Your task to perform on an android device: open wifi settings Image 0: 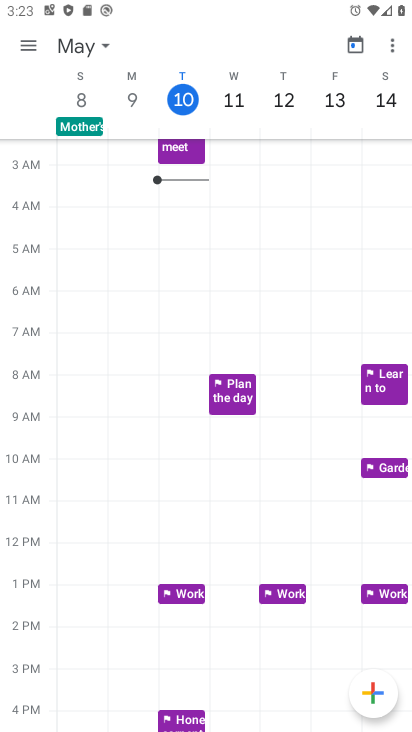
Step 0: press home button
Your task to perform on an android device: open wifi settings Image 1: 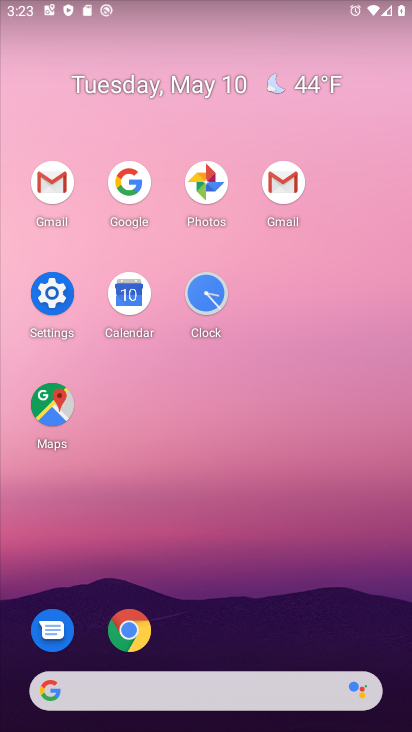
Step 1: click (56, 298)
Your task to perform on an android device: open wifi settings Image 2: 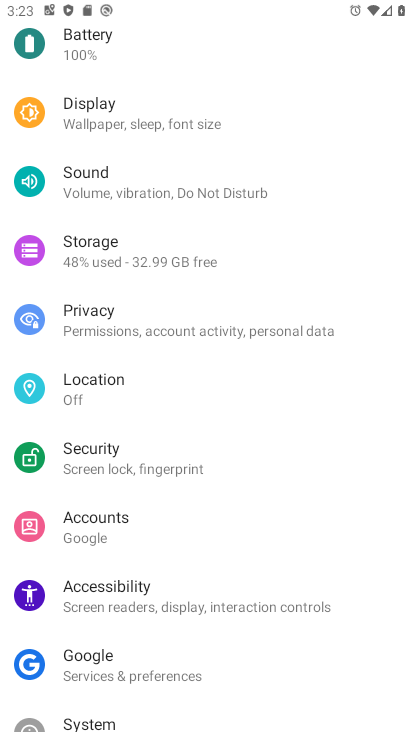
Step 2: drag from (259, 108) to (198, 593)
Your task to perform on an android device: open wifi settings Image 3: 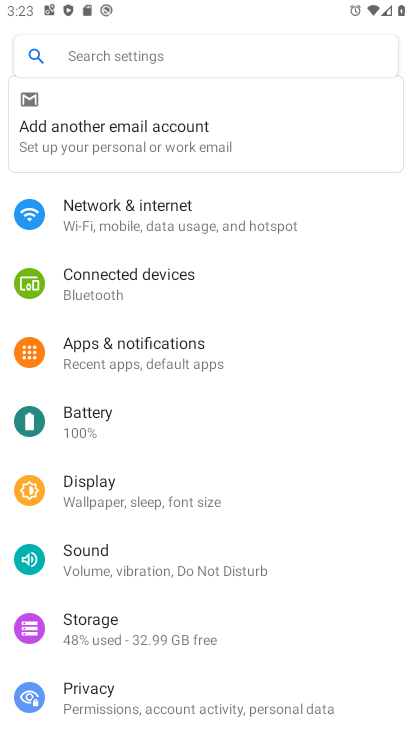
Step 3: click (224, 225)
Your task to perform on an android device: open wifi settings Image 4: 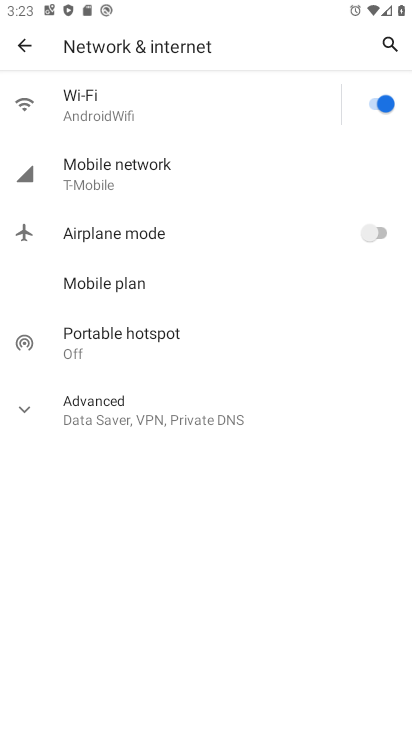
Step 4: click (99, 116)
Your task to perform on an android device: open wifi settings Image 5: 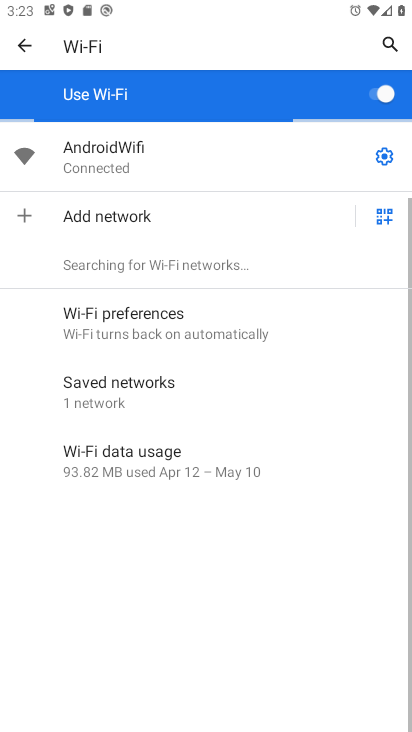
Step 5: click (385, 153)
Your task to perform on an android device: open wifi settings Image 6: 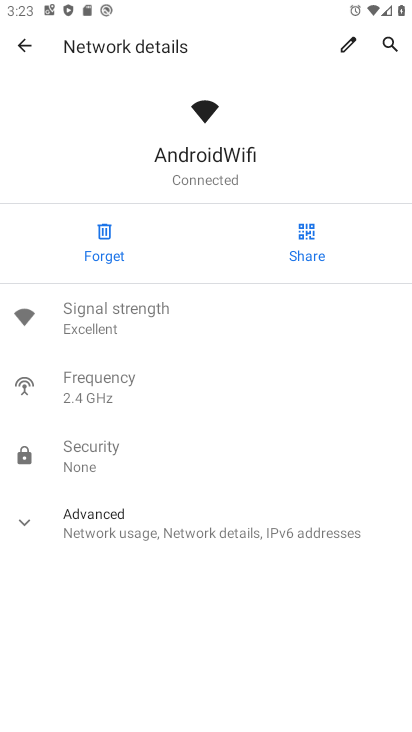
Step 6: task complete